Your task to perform on an android device: open app "Pluto TV - Live TV and Movies" Image 0: 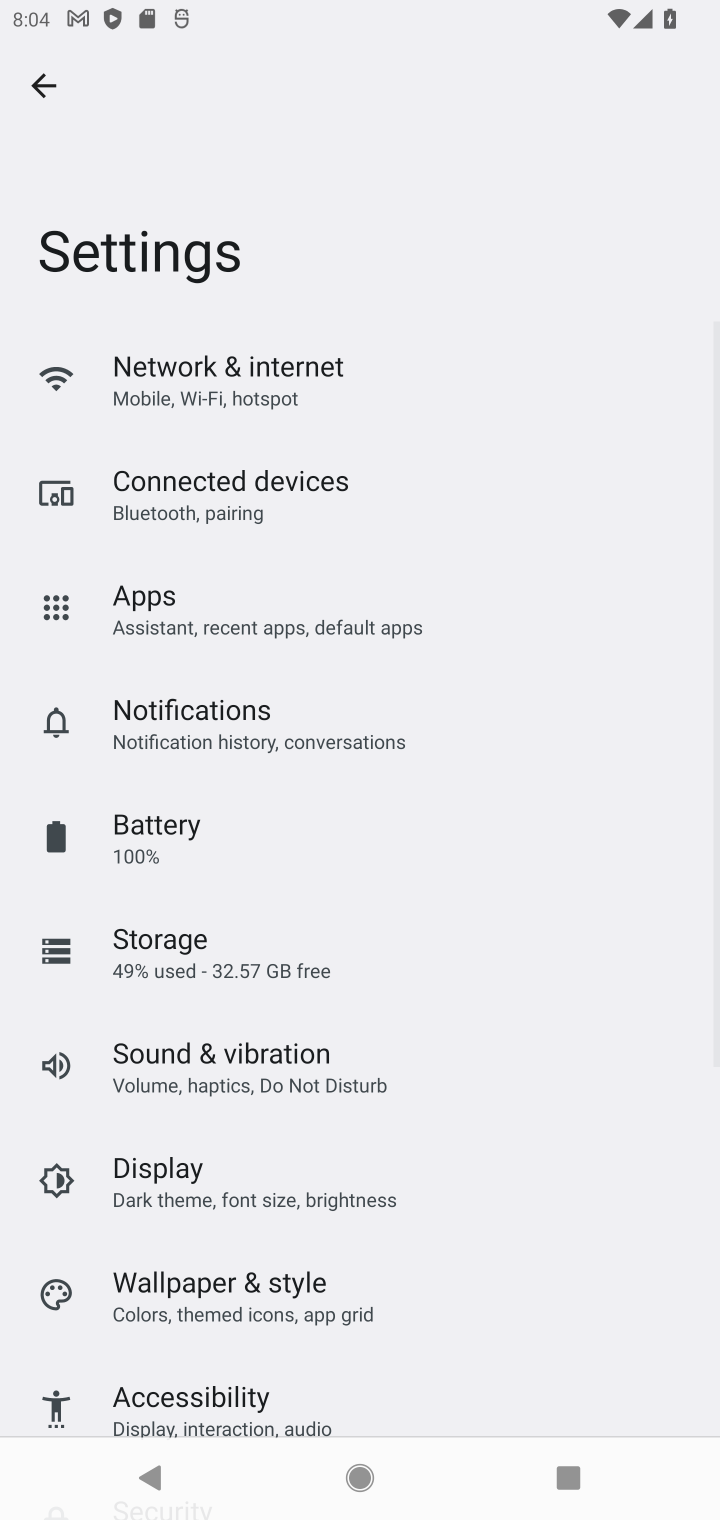
Step 0: press home button
Your task to perform on an android device: open app "Pluto TV - Live TV and Movies" Image 1: 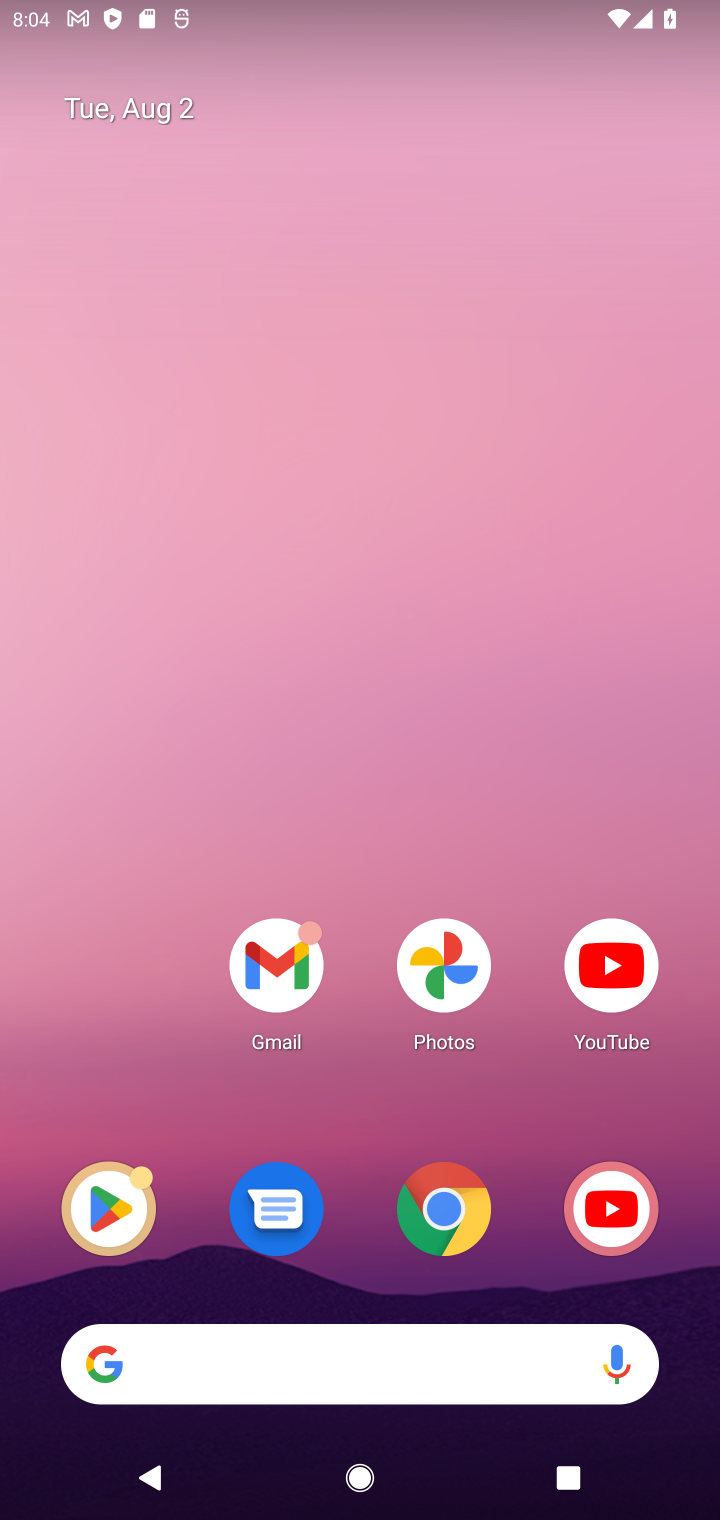
Step 1: click (107, 1243)
Your task to perform on an android device: open app "Pluto TV - Live TV and Movies" Image 2: 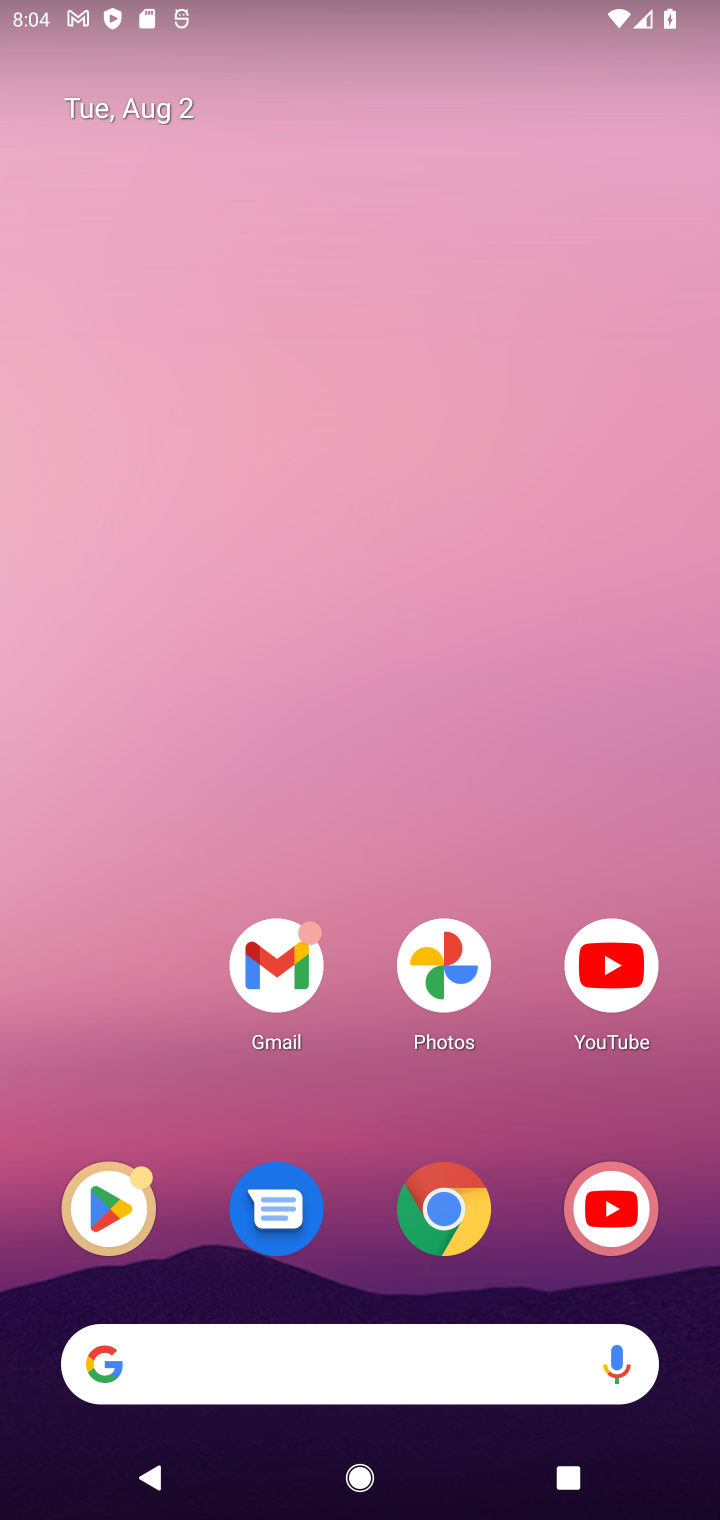
Step 2: click (119, 1179)
Your task to perform on an android device: open app "Pluto TV - Live TV and Movies" Image 3: 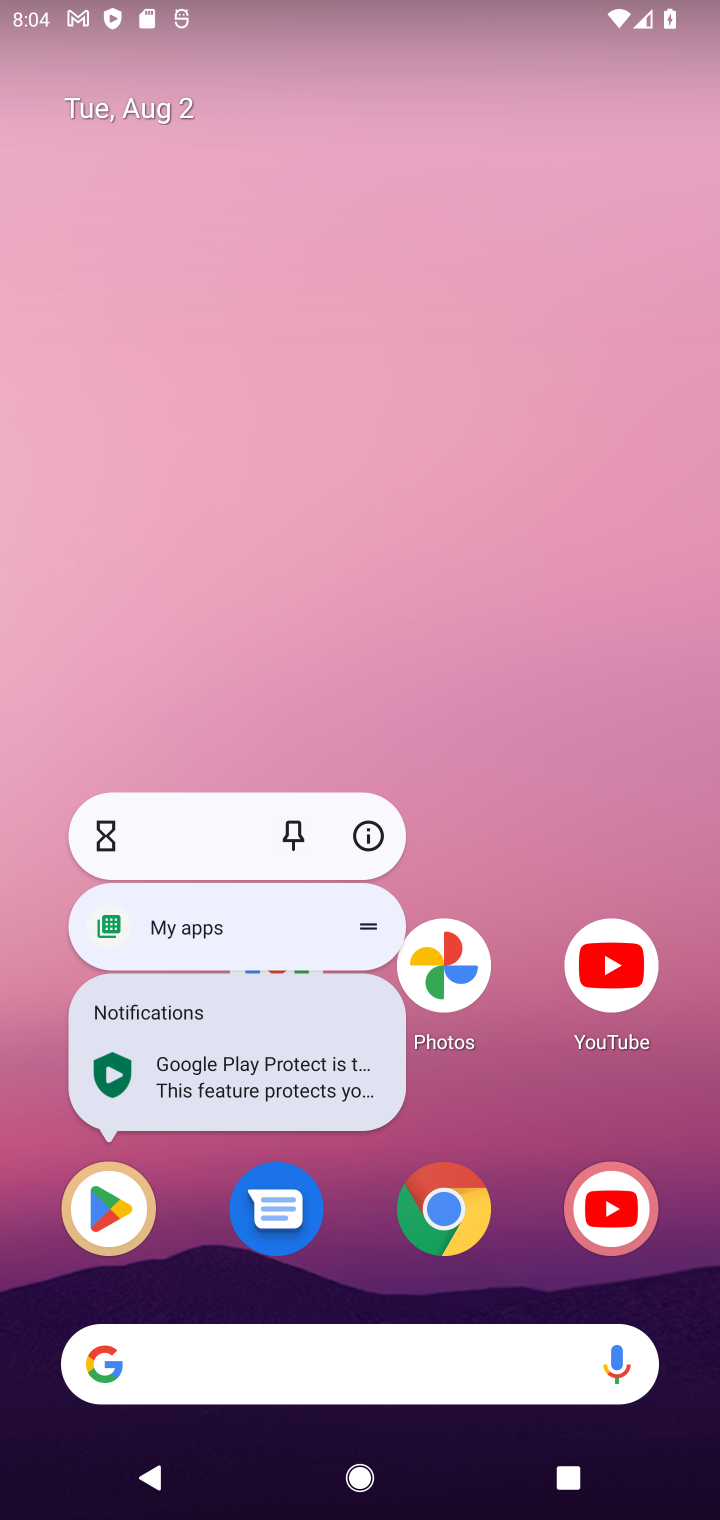
Step 3: click (118, 1207)
Your task to perform on an android device: open app "Pluto TV - Live TV and Movies" Image 4: 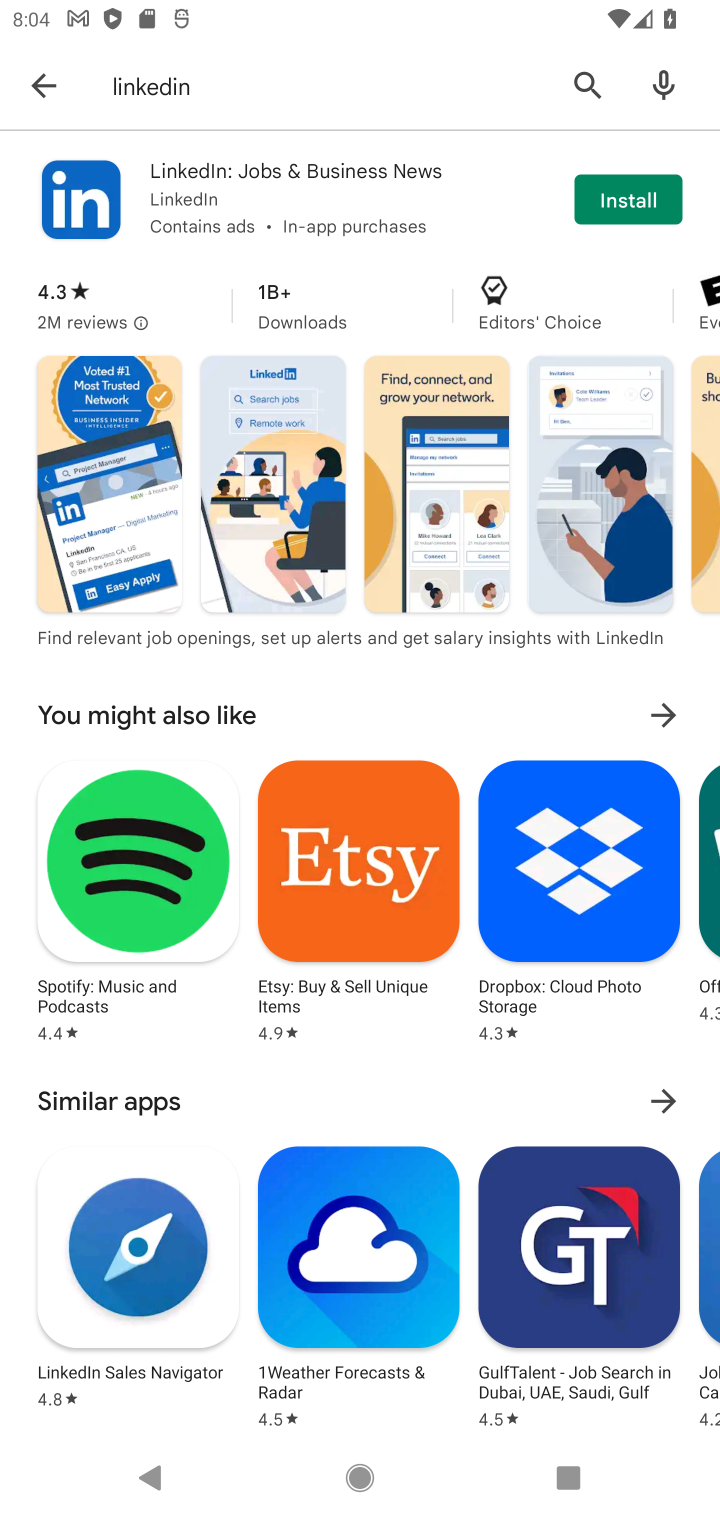
Step 4: click (567, 98)
Your task to perform on an android device: open app "Pluto TV - Live TV and Movies" Image 5: 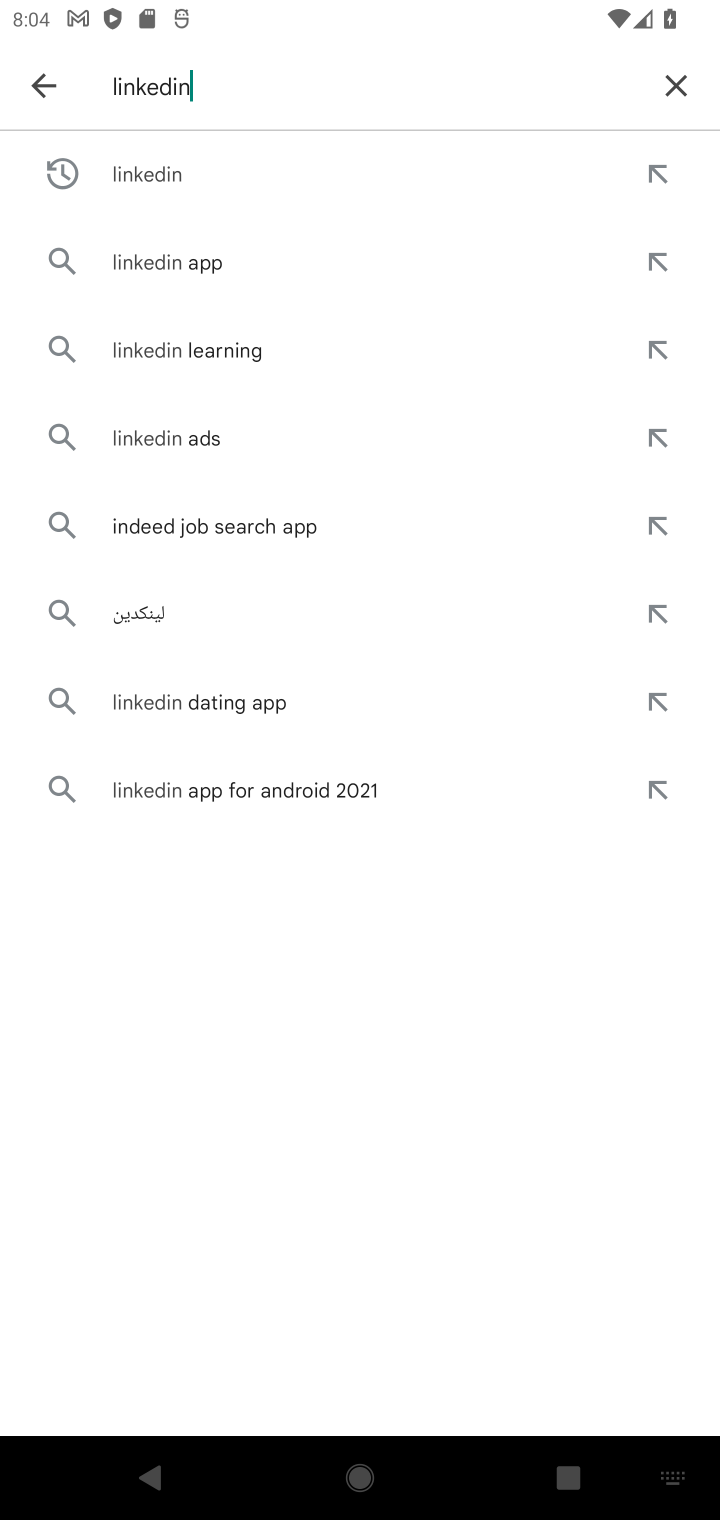
Step 5: click (660, 84)
Your task to perform on an android device: open app "Pluto TV - Live TV and Movies" Image 6: 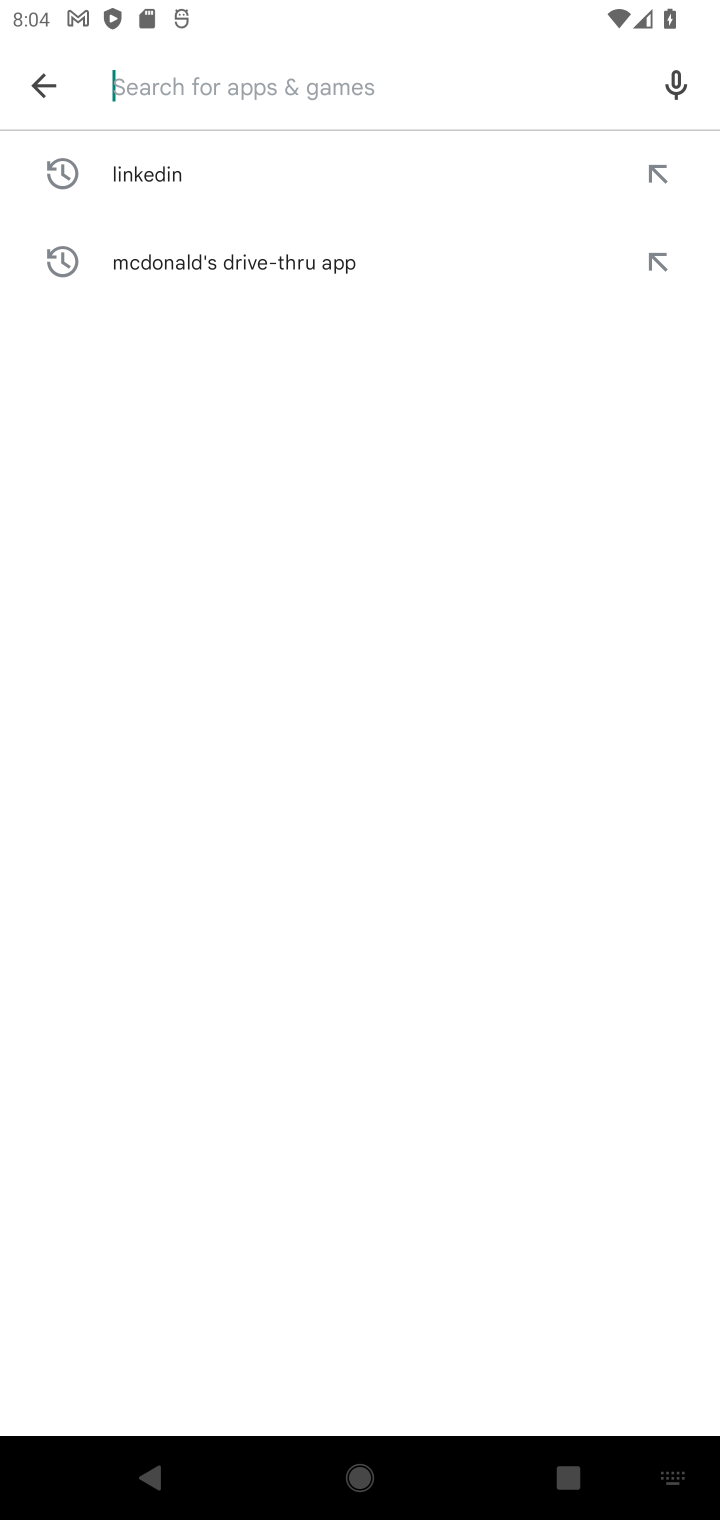
Step 6: type "Pluto TV"
Your task to perform on an android device: open app "Pluto TV - Live TV and Movies" Image 7: 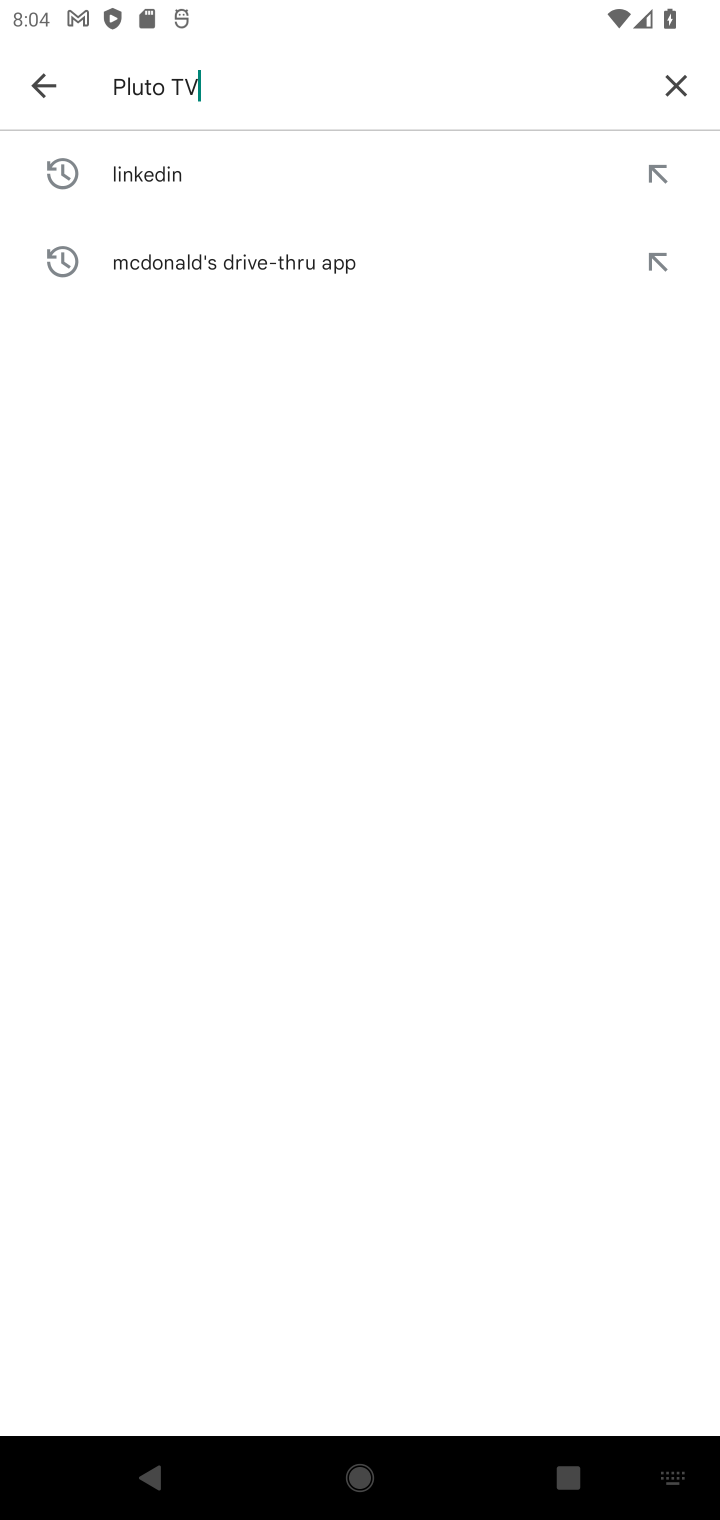
Step 7: type ""
Your task to perform on an android device: open app "Pluto TV - Live TV and Movies" Image 8: 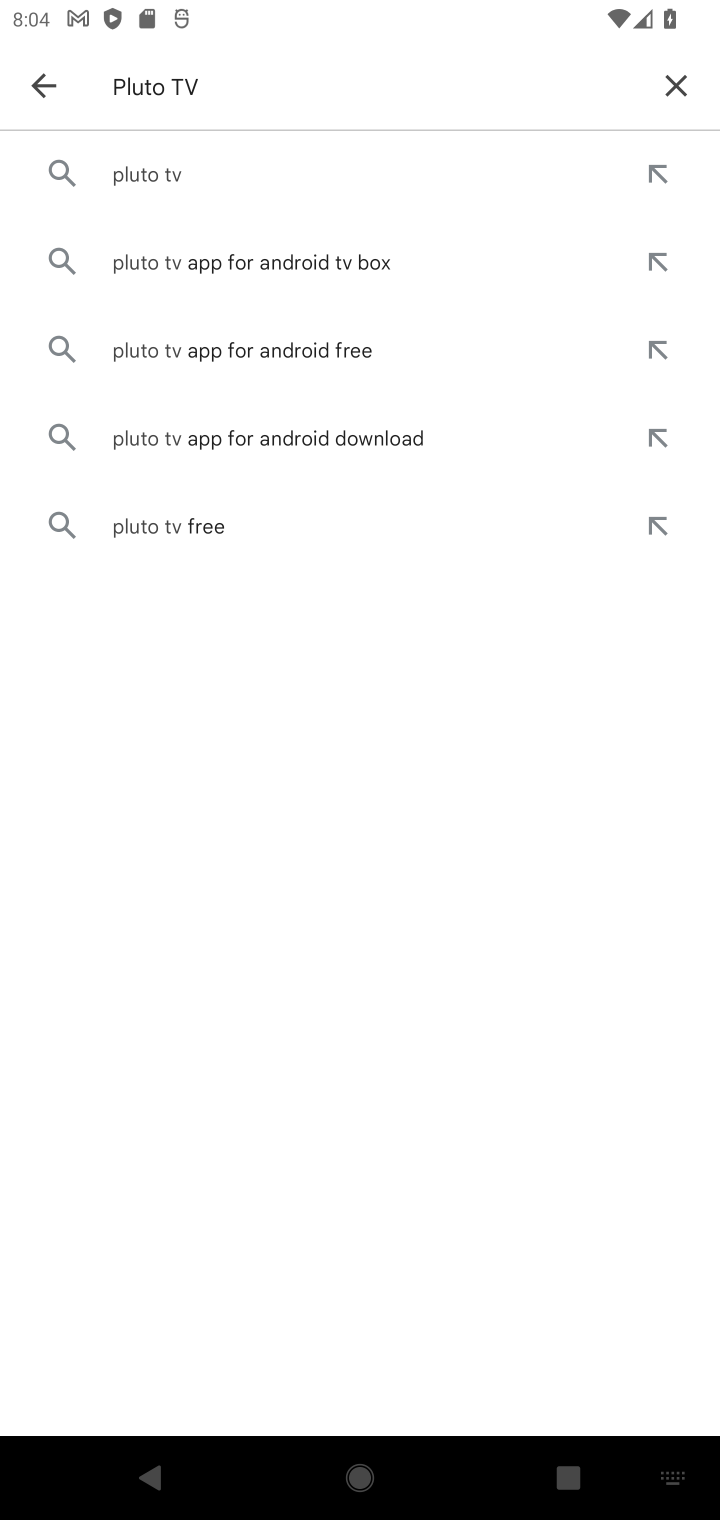
Step 8: click (140, 171)
Your task to perform on an android device: open app "Pluto TV - Live TV and Movies" Image 9: 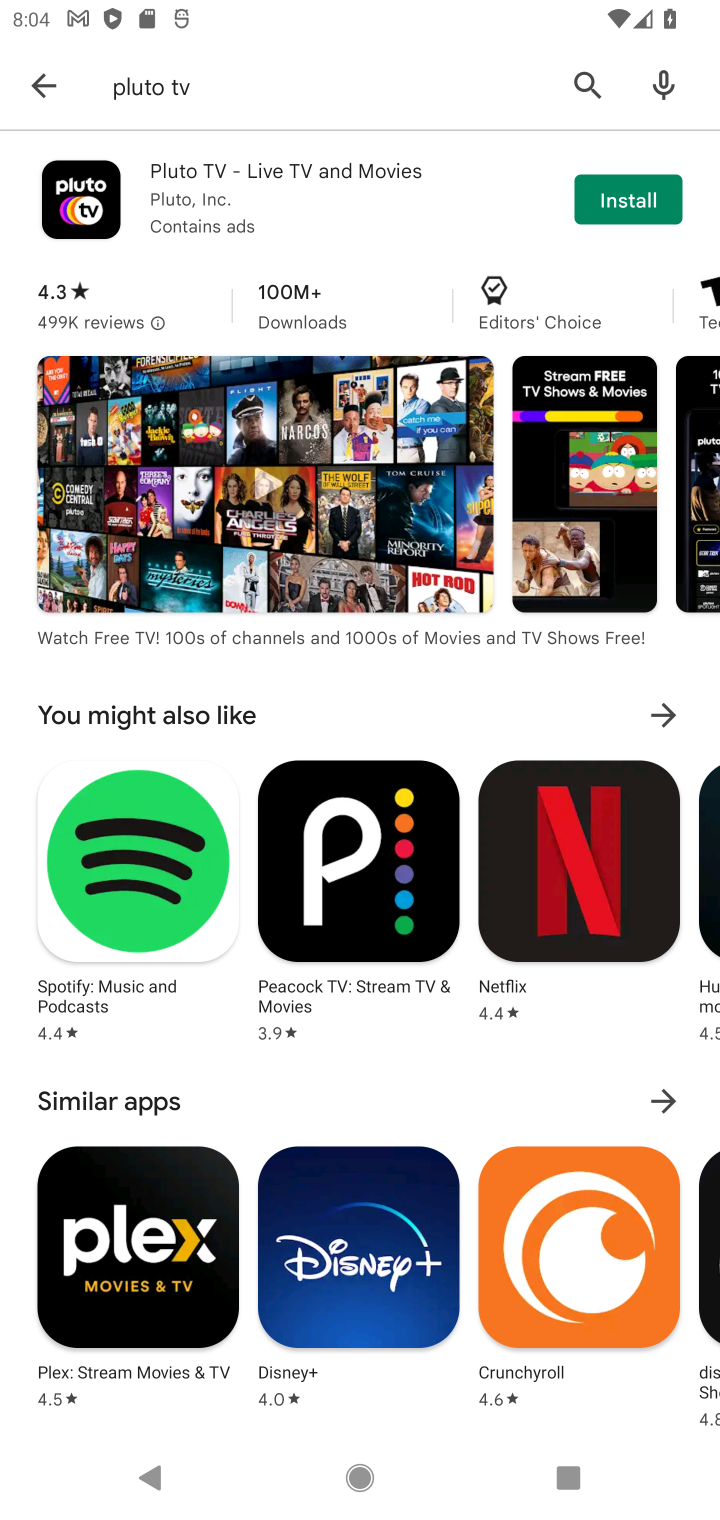
Step 9: task complete